Your task to perform on an android device: toggle airplane mode Image 0: 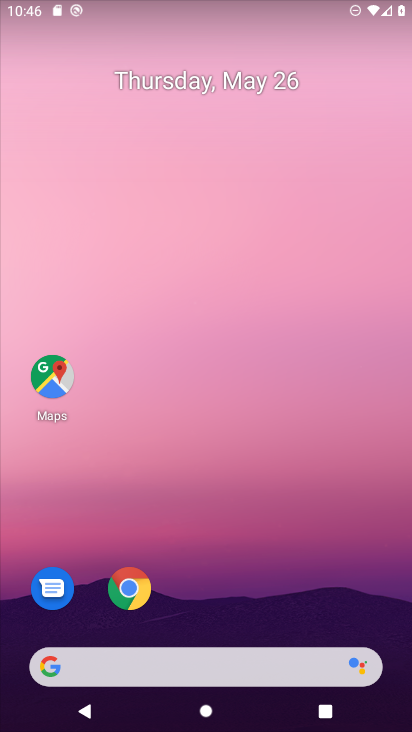
Step 0: drag from (373, 611) to (336, 71)
Your task to perform on an android device: toggle airplane mode Image 1: 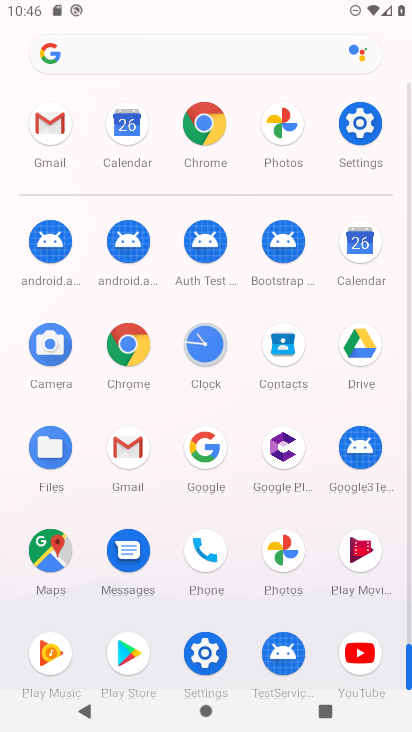
Step 1: click (208, 653)
Your task to perform on an android device: toggle airplane mode Image 2: 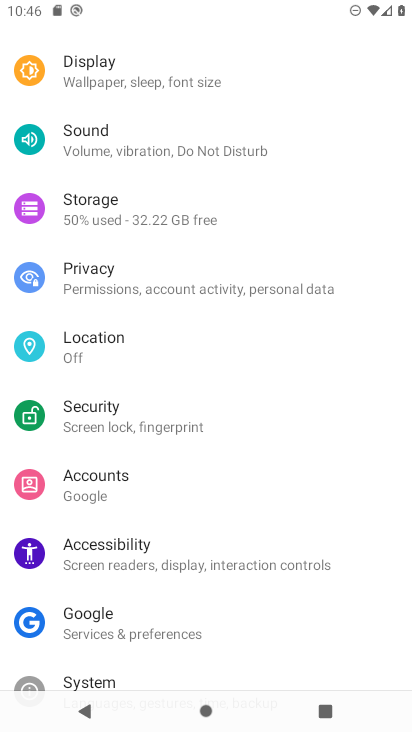
Step 2: drag from (296, 159) to (351, 505)
Your task to perform on an android device: toggle airplane mode Image 3: 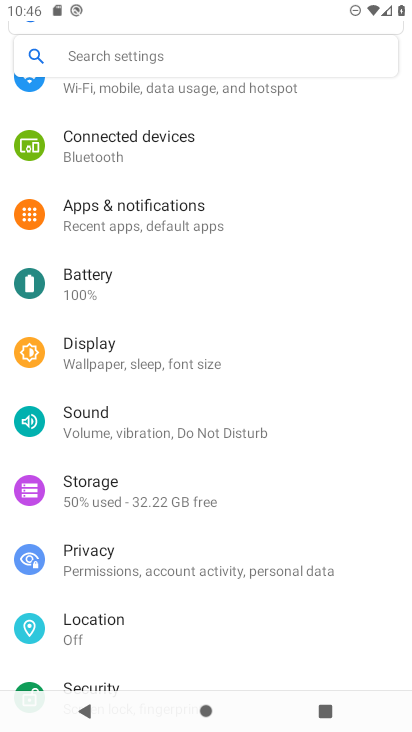
Step 3: drag from (167, 157) to (259, 453)
Your task to perform on an android device: toggle airplane mode Image 4: 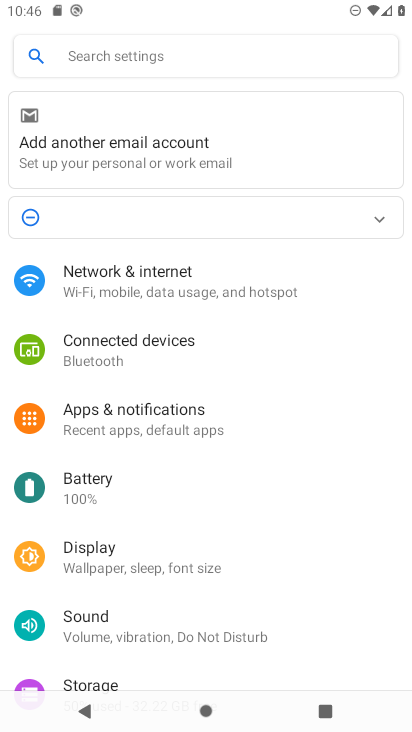
Step 4: click (118, 276)
Your task to perform on an android device: toggle airplane mode Image 5: 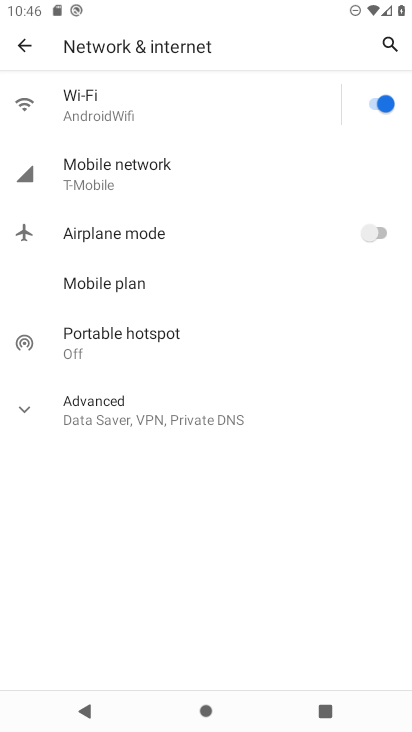
Step 5: click (380, 231)
Your task to perform on an android device: toggle airplane mode Image 6: 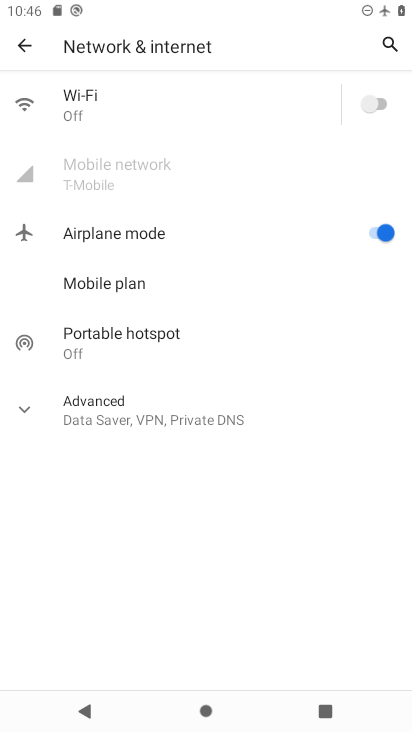
Step 6: task complete